Your task to perform on an android device: open a bookmark in the chrome app Image 0: 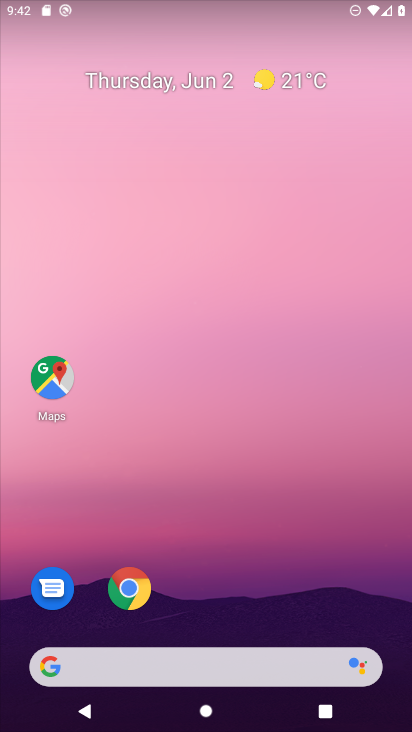
Step 0: drag from (228, 311) to (236, 251)
Your task to perform on an android device: open a bookmark in the chrome app Image 1: 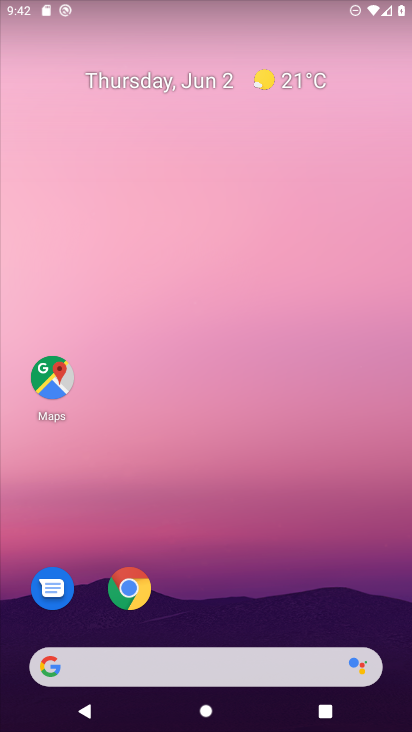
Step 1: drag from (213, 444) to (228, 346)
Your task to perform on an android device: open a bookmark in the chrome app Image 2: 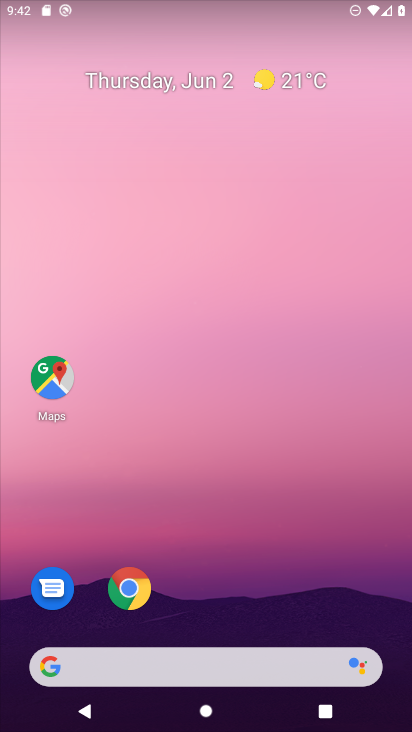
Step 2: drag from (196, 603) to (240, 176)
Your task to perform on an android device: open a bookmark in the chrome app Image 3: 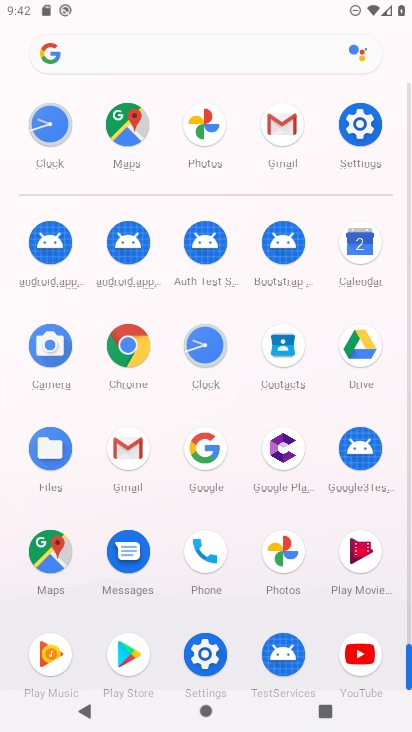
Step 3: click (125, 352)
Your task to perform on an android device: open a bookmark in the chrome app Image 4: 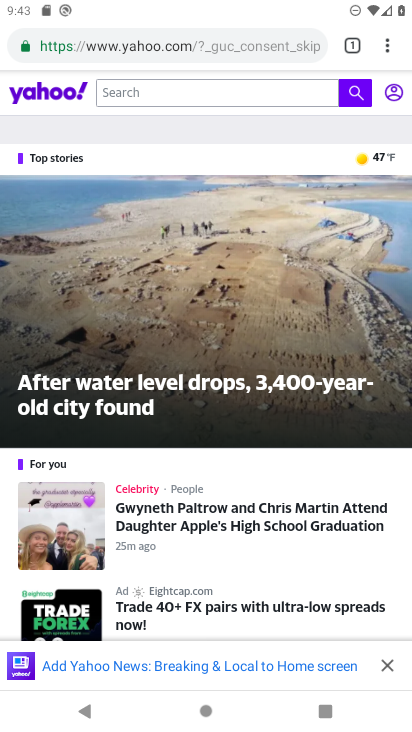
Step 4: click (393, 42)
Your task to perform on an android device: open a bookmark in the chrome app Image 5: 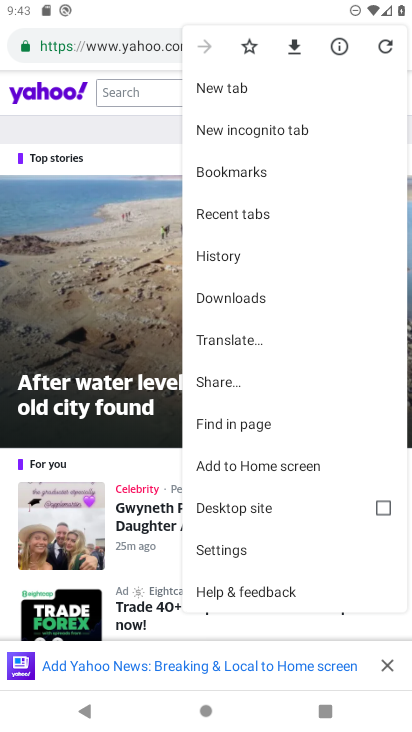
Step 5: click (249, 173)
Your task to perform on an android device: open a bookmark in the chrome app Image 6: 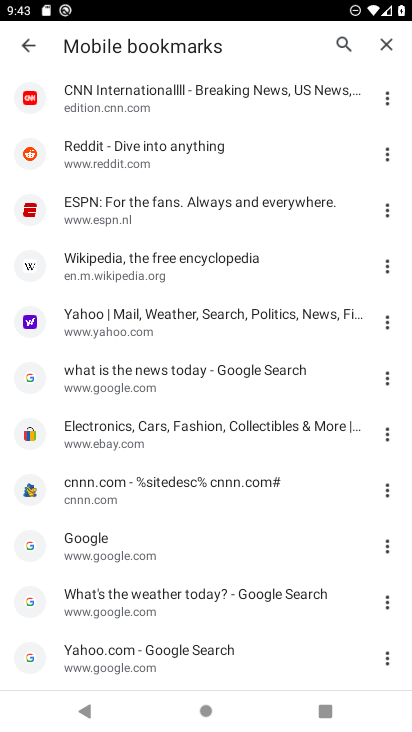
Step 6: click (154, 314)
Your task to perform on an android device: open a bookmark in the chrome app Image 7: 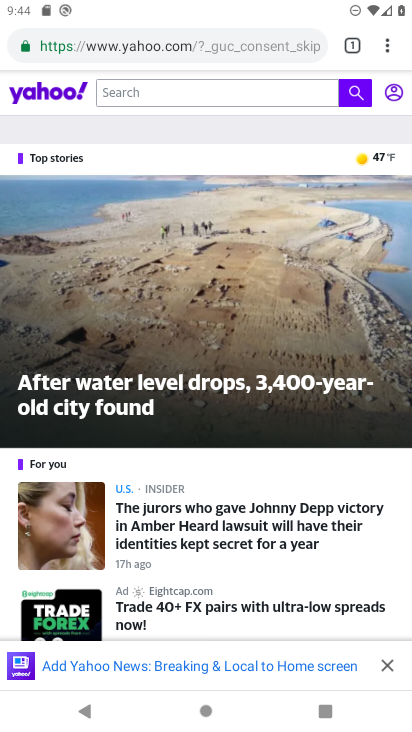
Step 7: task complete